Your task to perform on an android device: Open sound settings Image 0: 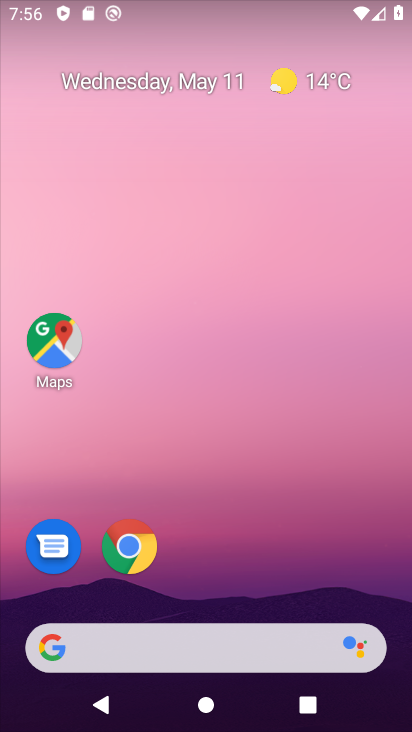
Step 0: drag from (231, 657) to (223, 166)
Your task to perform on an android device: Open sound settings Image 1: 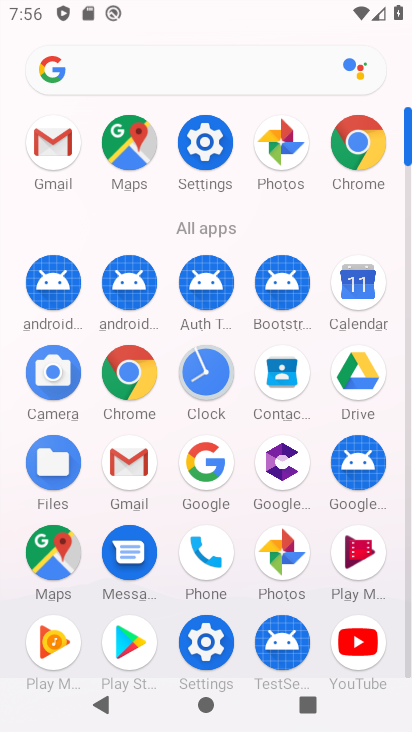
Step 1: click (205, 131)
Your task to perform on an android device: Open sound settings Image 2: 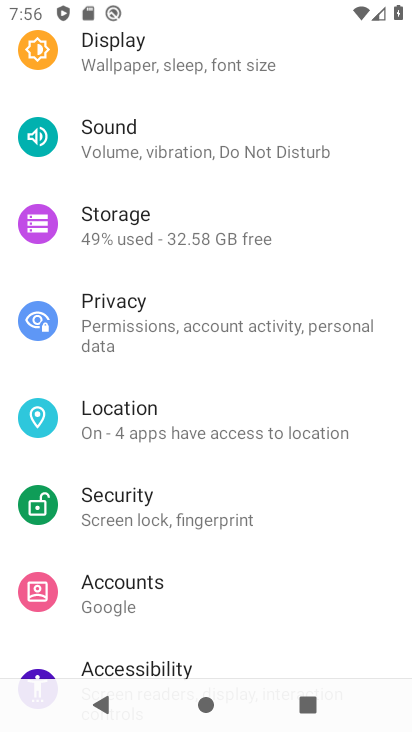
Step 2: click (134, 129)
Your task to perform on an android device: Open sound settings Image 3: 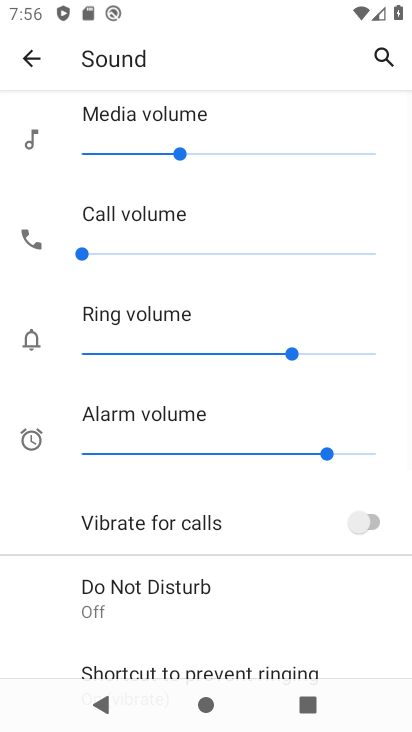
Step 3: task complete